Your task to perform on an android device: Go to Android settings Image 0: 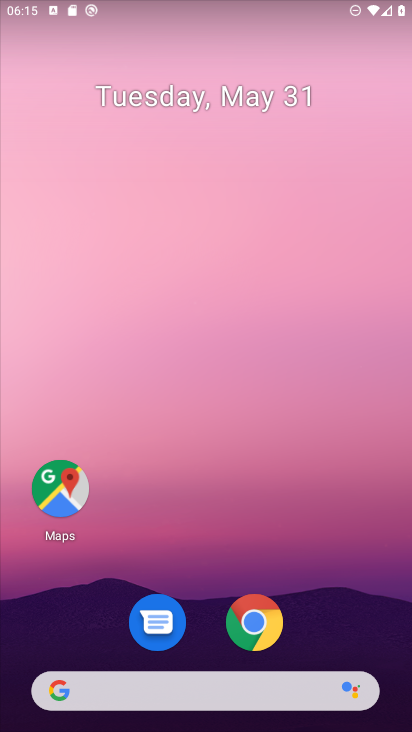
Step 0: drag from (246, 670) to (311, 17)
Your task to perform on an android device: Go to Android settings Image 1: 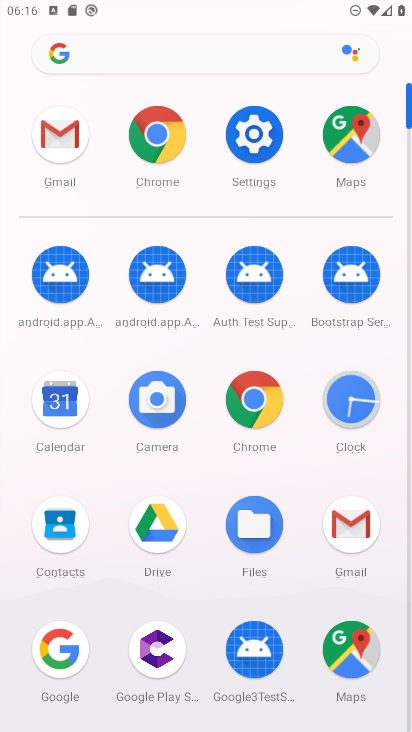
Step 1: click (261, 121)
Your task to perform on an android device: Go to Android settings Image 2: 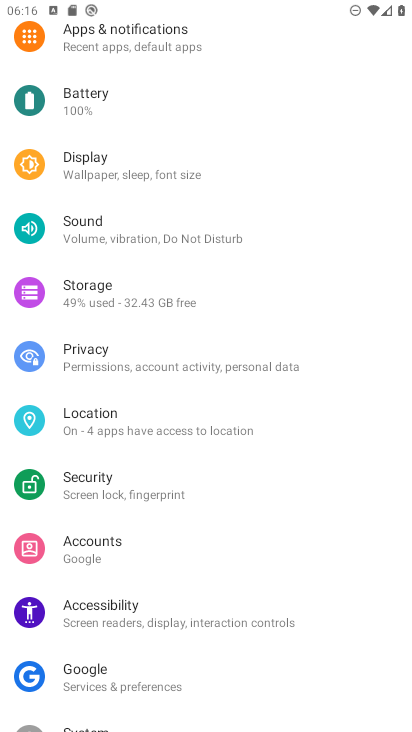
Step 2: drag from (314, 210) to (228, 65)
Your task to perform on an android device: Go to Android settings Image 3: 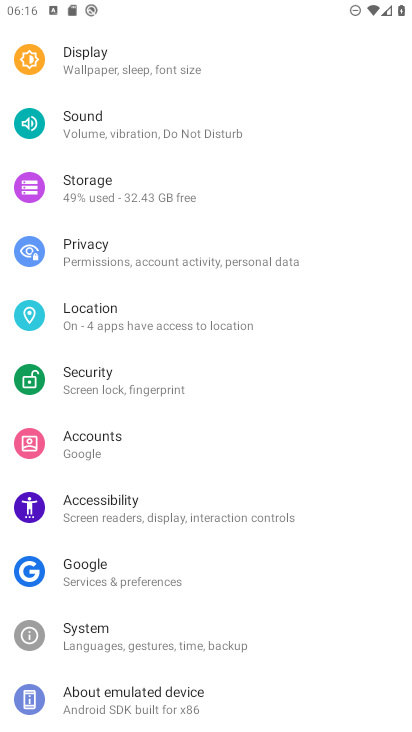
Step 3: drag from (273, 718) to (280, 646)
Your task to perform on an android device: Go to Android settings Image 4: 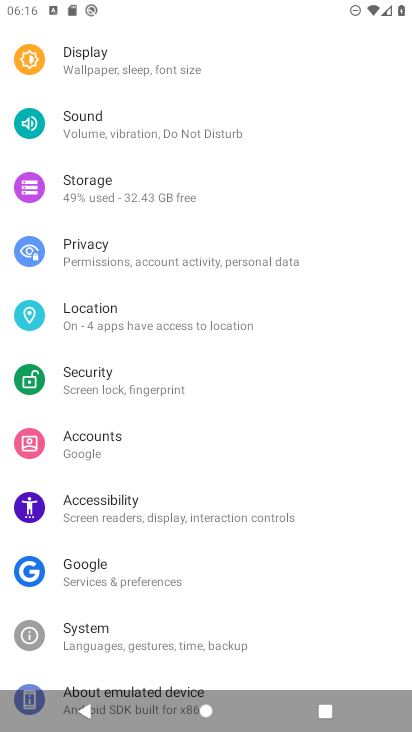
Step 4: click (200, 685)
Your task to perform on an android device: Go to Android settings Image 5: 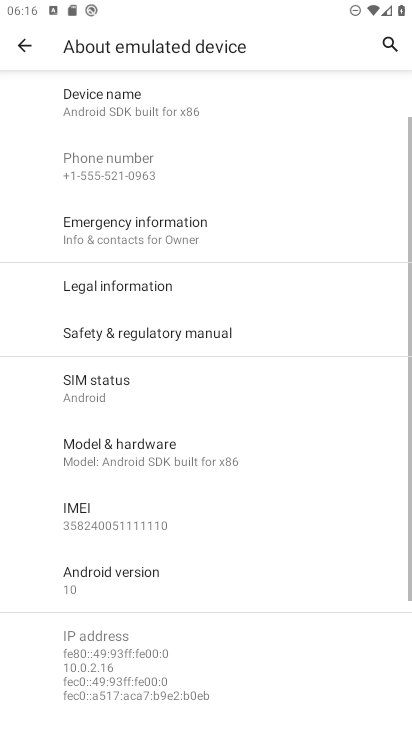
Step 5: click (150, 583)
Your task to perform on an android device: Go to Android settings Image 6: 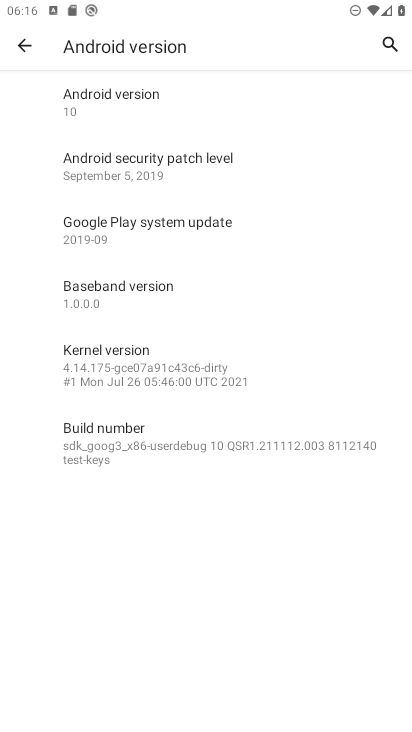
Step 6: task complete